Your task to perform on an android device: Open ESPN.com Image 0: 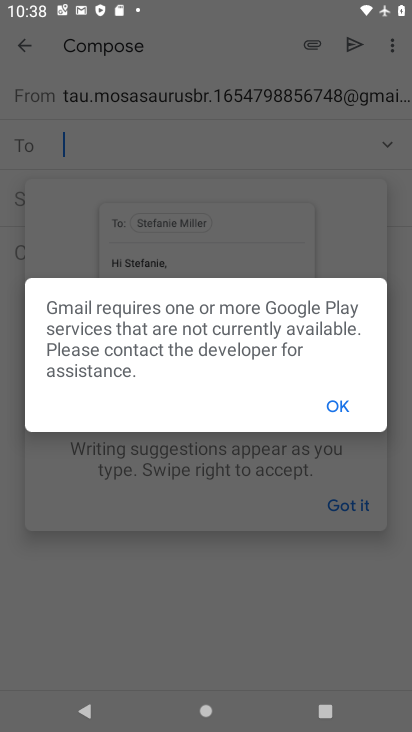
Step 0: press home button
Your task to perform on an android device: Open ESPN.com Image 1: 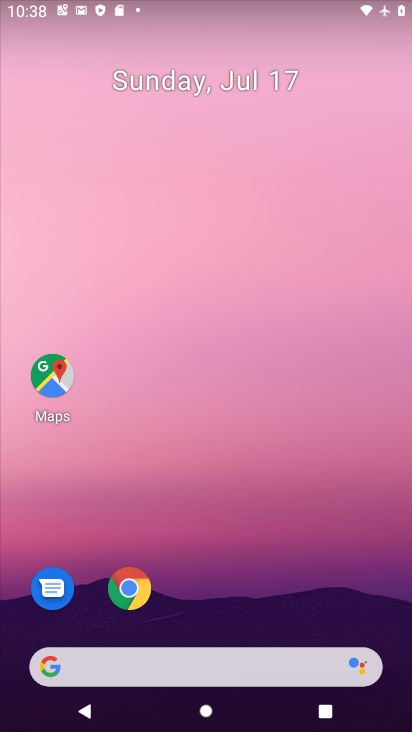
Step 1: drag from (270, 585) to (189, 44)
Your task to perform on an android device: Open ESPN.com Image 2: 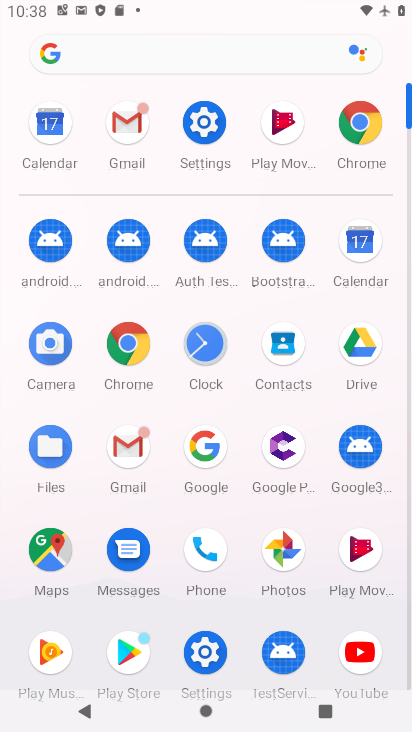
Step 2: click (378, 122)
Your task to perform on an android device: Open ESPN.com Image 3: 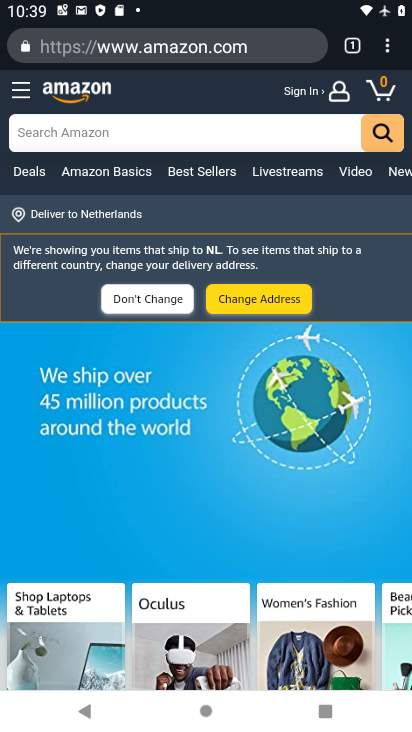
Step 3: click (191, 43)
Your task to perform on an android device: Open ESPN.com Image 4: 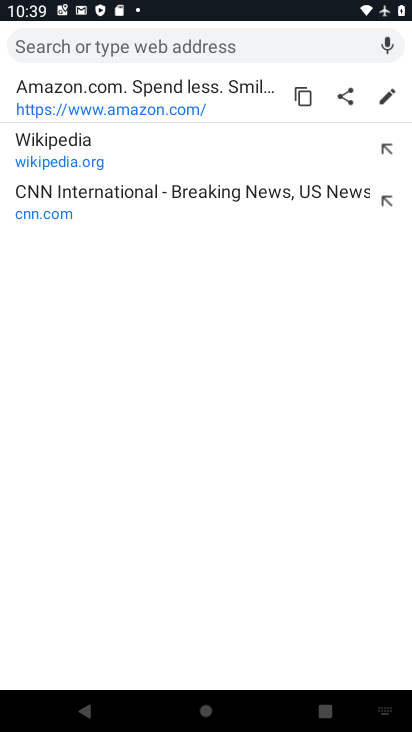
Step 4: type " ESPN.com"
Your task to perform on an android device: Open ESPN.com Image 5: 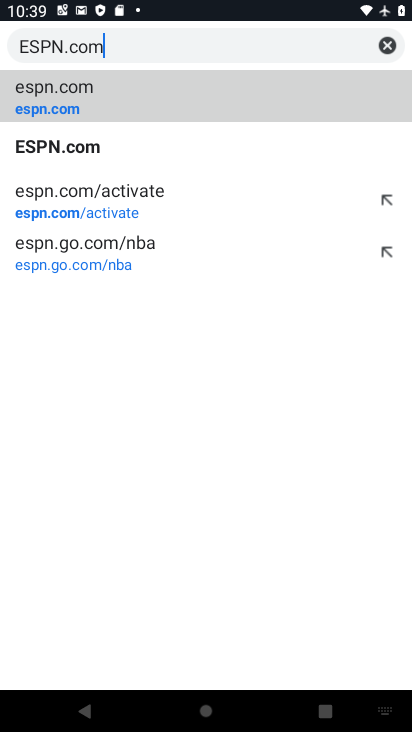
Step 5: type ""
Your task to perform on an android device: Open ESPN.com Image 6: 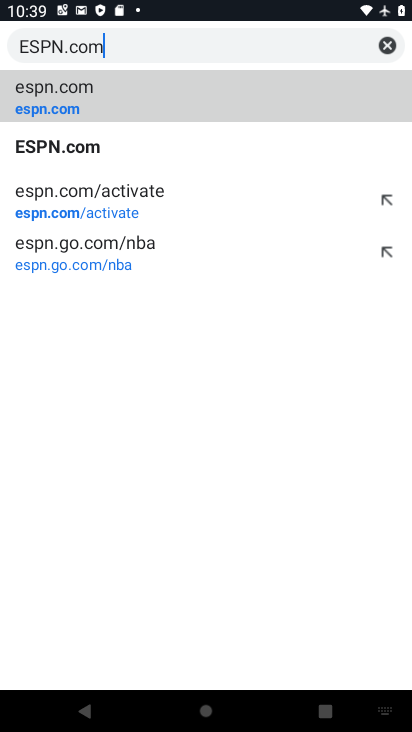
Step 6: click (195, 102)
Your task to perform on an android device: Open ESPN.com Image 7: 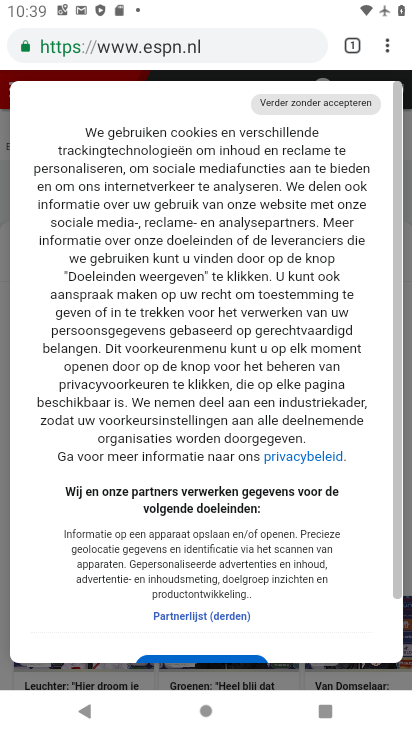
Step 7: click (260, 45)
Your task to perform on an android device: Open ESPN.com Image 8: 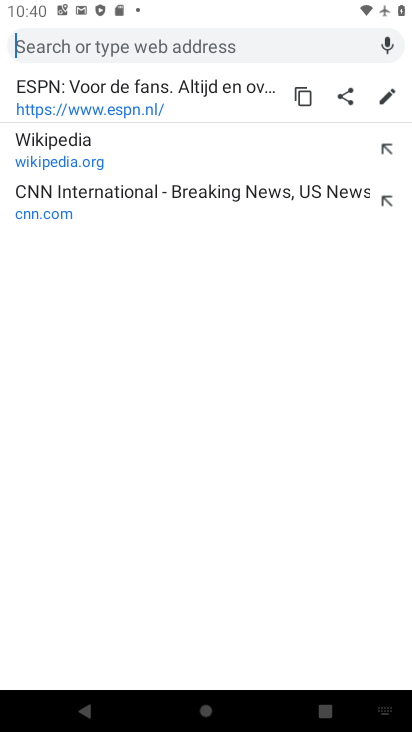
Step 8: type " ESPN.com"
Your task to perform on an android device: Open ESPN.com Image 9: 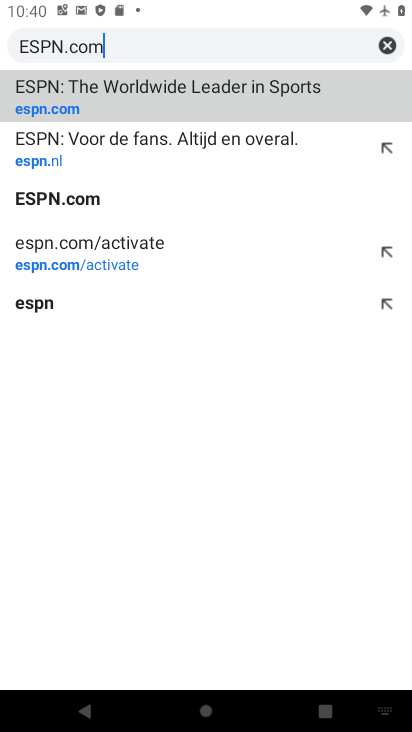
Step 9: type ""
Your task to perform on an android device: Open ESPN.com Image 10: 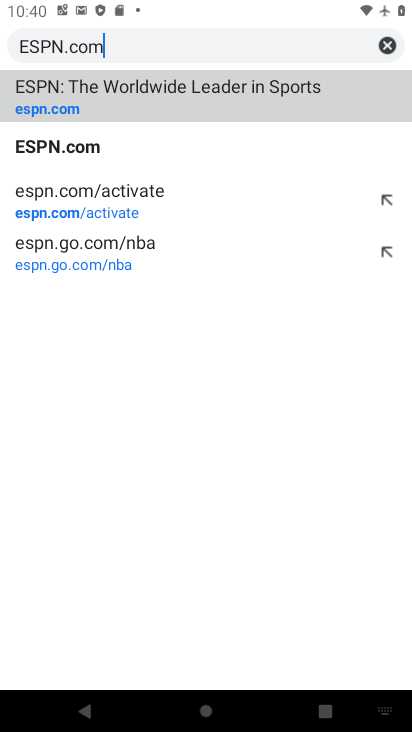
Step 10: click (143, 97)
Your task to perform on an android device: Open ESPN.com Image 11: 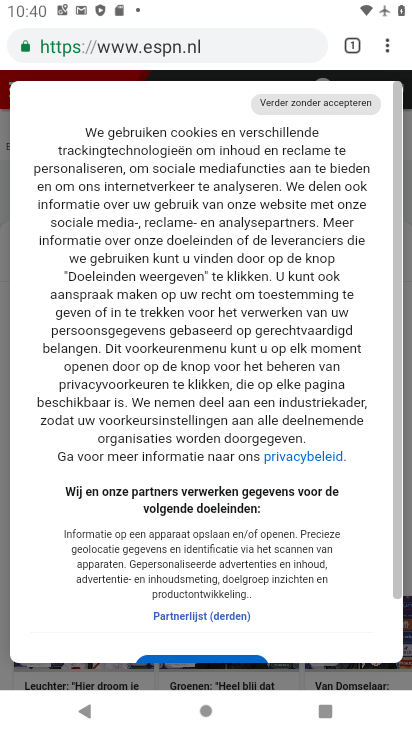
Step 11: task complete